Your task to perform on an android device: Go to CNN.com Image 0: 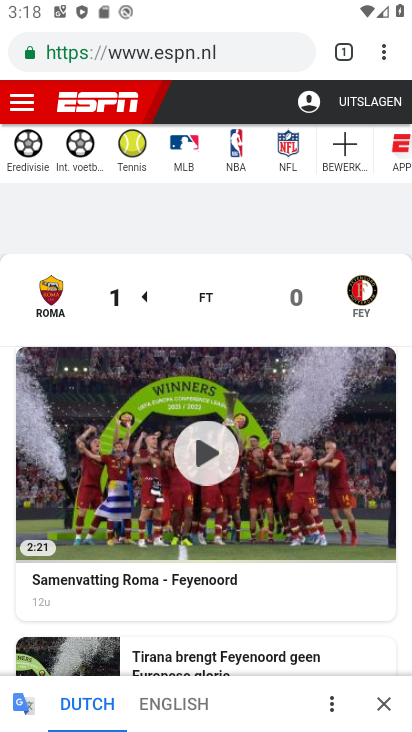
Step 0: click (343, 49)
Your task to perform on an android device: Go to CNN.com Image 1: 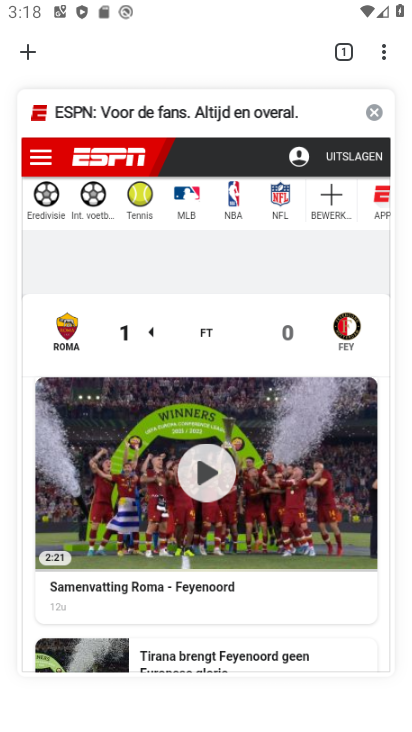
Step 1: click (380, 110)
Your task to perform on an android device: Go to CNN.com Image 2: 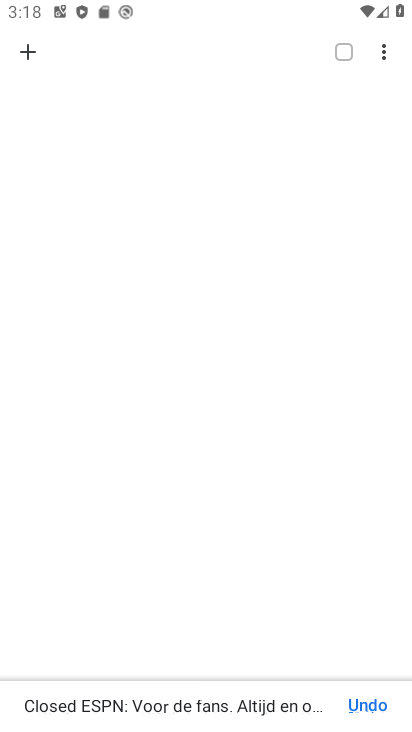
Step 2: click (22, 50)
Your task to perform on an android device: Go to CNN.com Image 3: 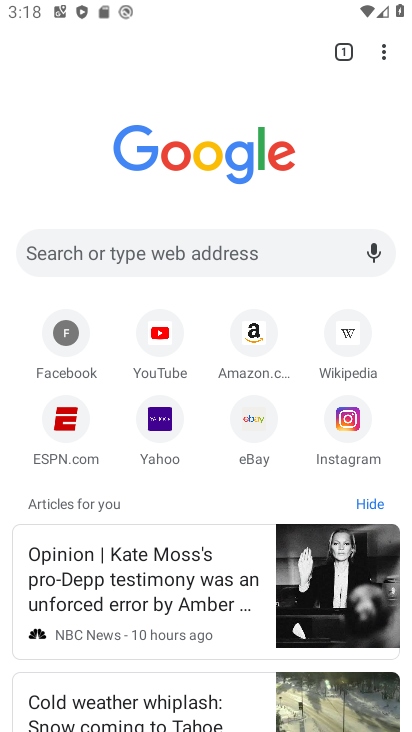
Step 3: click (226, 242)
Your task to perform on an android device: Go to CNN.com Image 4: 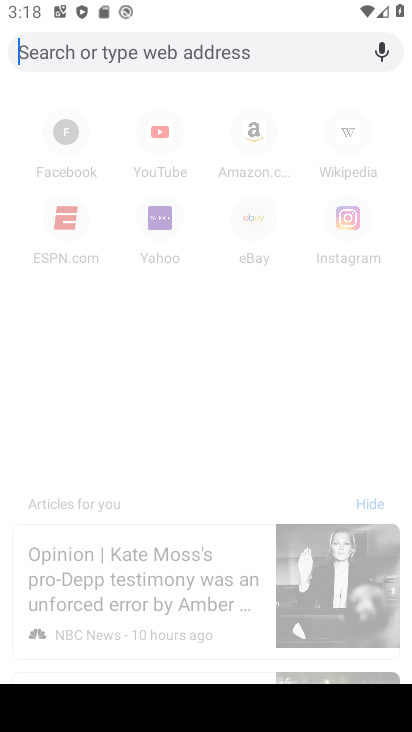
Step 4: type "cnn.com"
Your task to perform on an android device: Go to CNN.com Image 5: 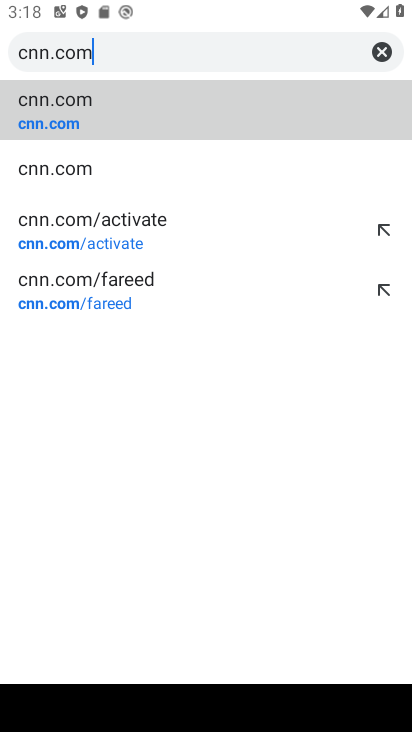
Step 5: click (100, 88)
Your task to perform on an android device: Go to CNN.com Image 6: 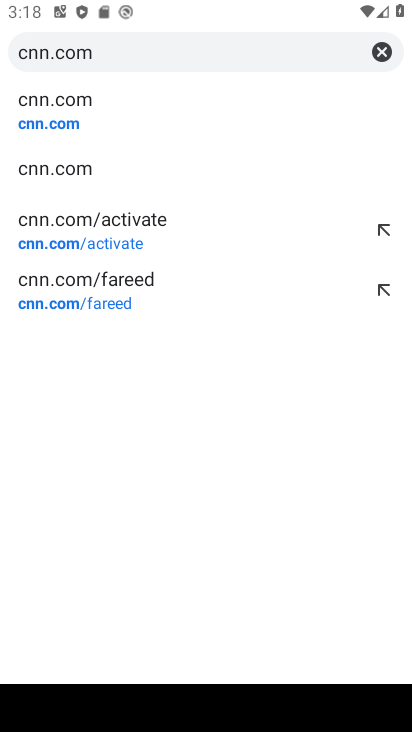
Step 6: click (143, 84)
Your task to perform on an android device: Go to CNN.com Image 7: 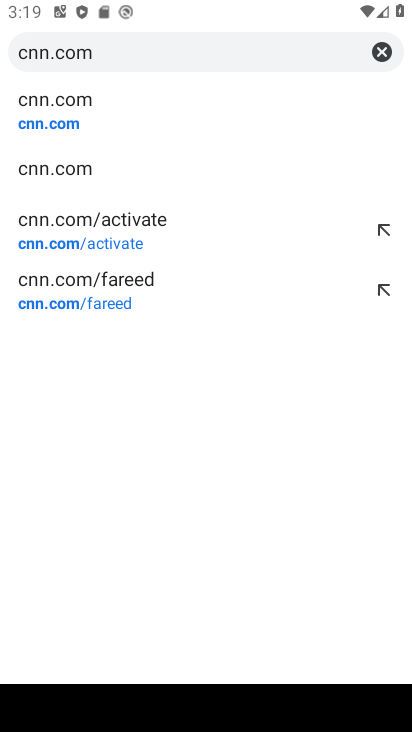
Step 7: click (183, 97)
Your task to perform on an android device: Go to CNN.com Image 8: 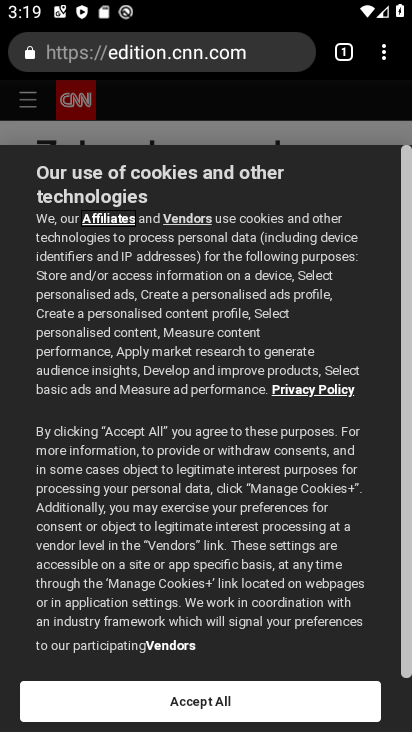
Step 8: task complete